Your task to perform on an android device: Is it going to rain today? Image 0: 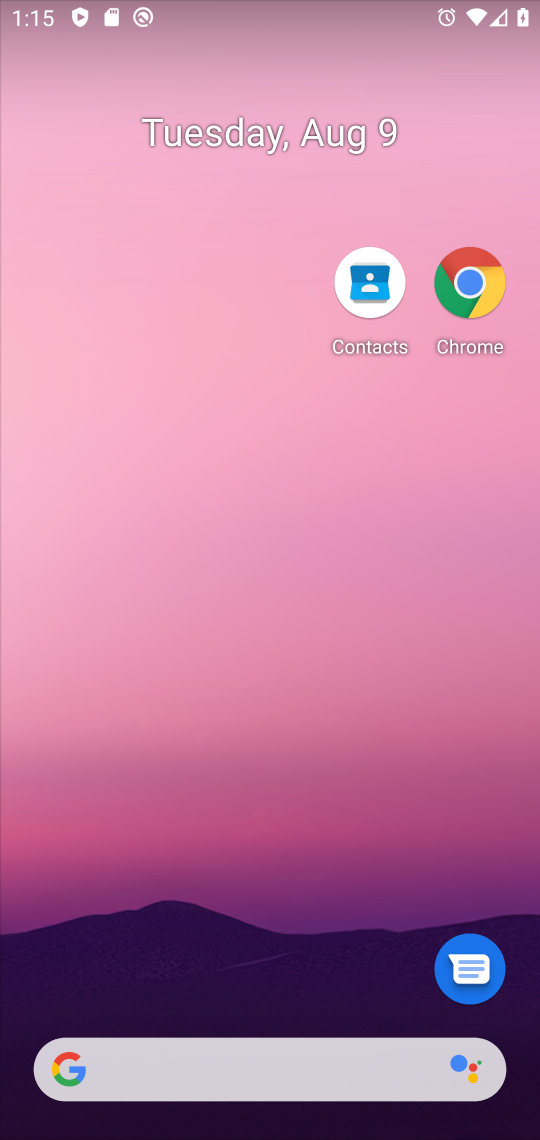
Step 0: drag from (290, 979) to (316, 137)
Your task to perform on an android device: Is it going to rain today? Image 1: 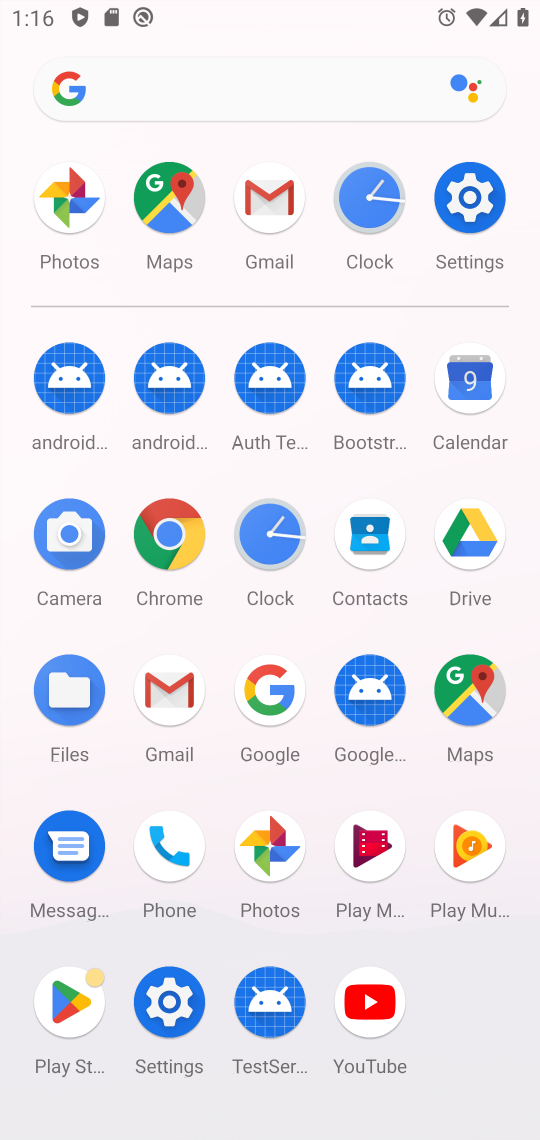
Step 1: click (143, 101)
Your task to perform on an android device: Is it going to rain today? Image 2: 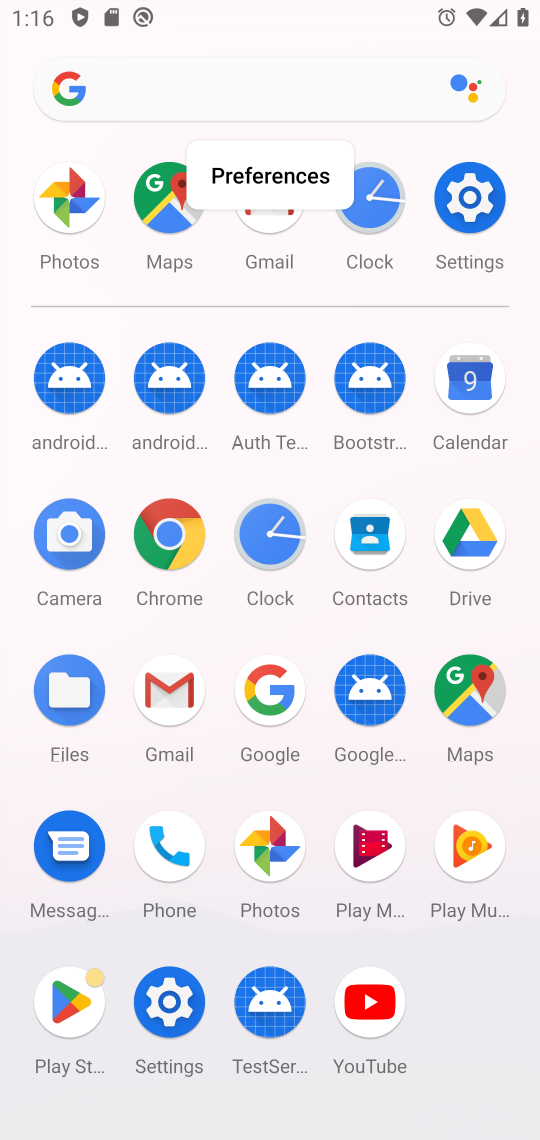
Step 2: click (297, 52)
Your task to perform on an android device: Is it going to rain today? Image 3: 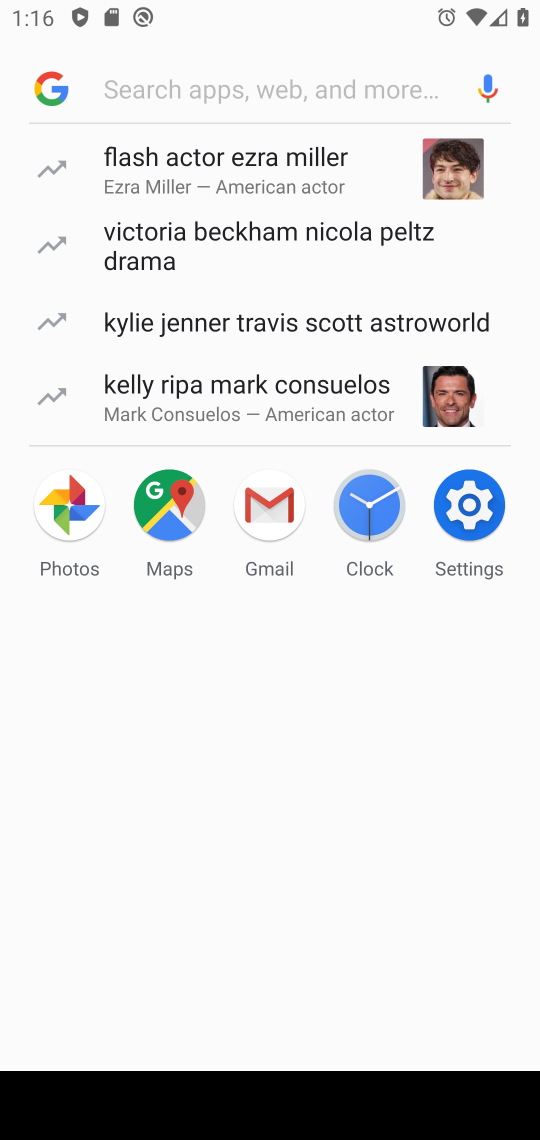
Step 3: type "Is it going to rain today?"
Your task to perform on an android device: Is it going to rain today? Image 4: 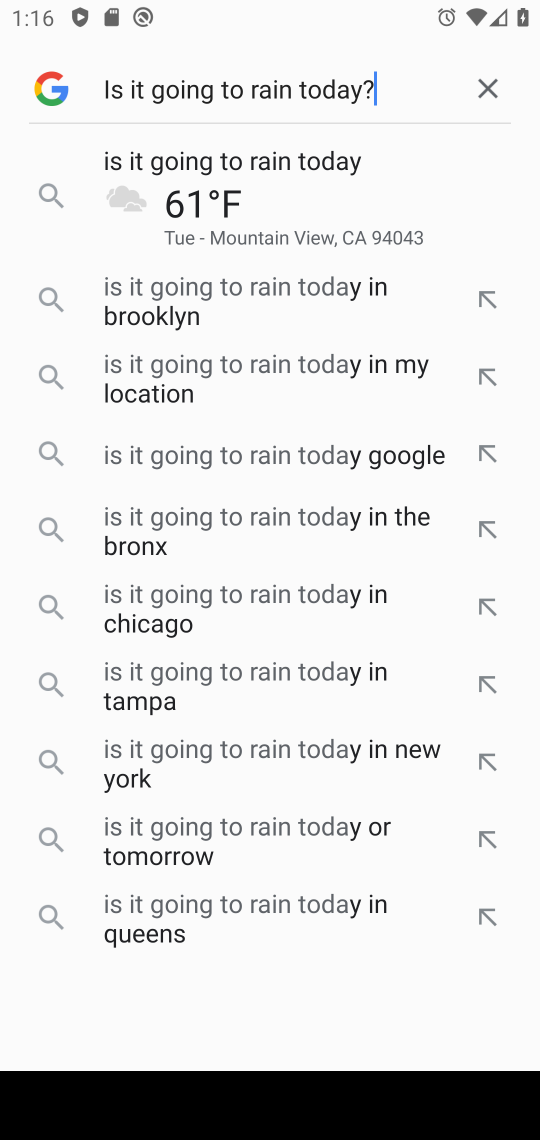
Step 4: type ""
Your task to perform on an android device: Is it going to rain today? Image 5: 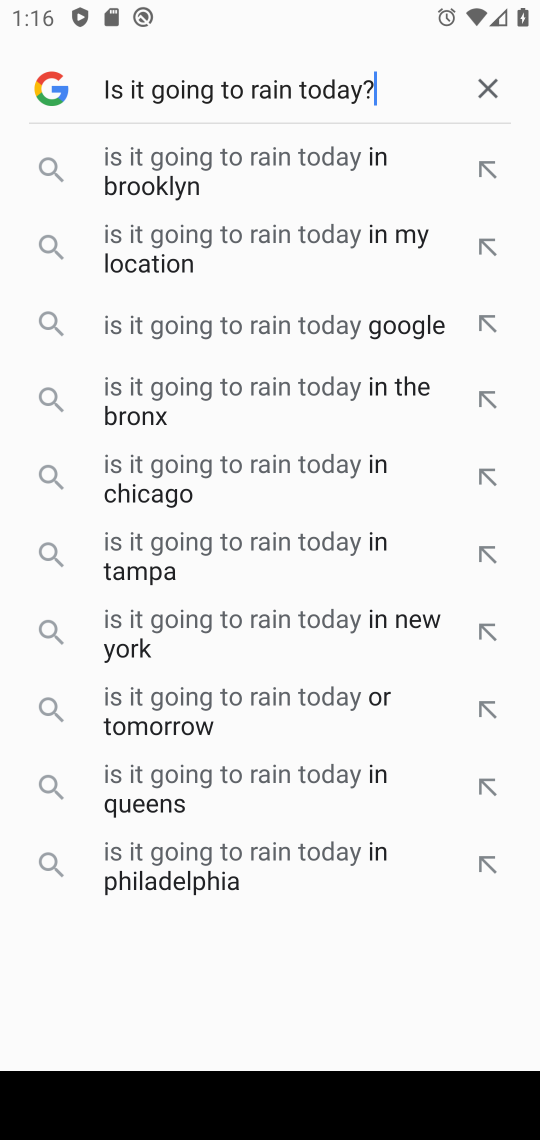
Step 5: click (161, 166)
Your task to perform on an android device: Is it going to rain today? Image 6: 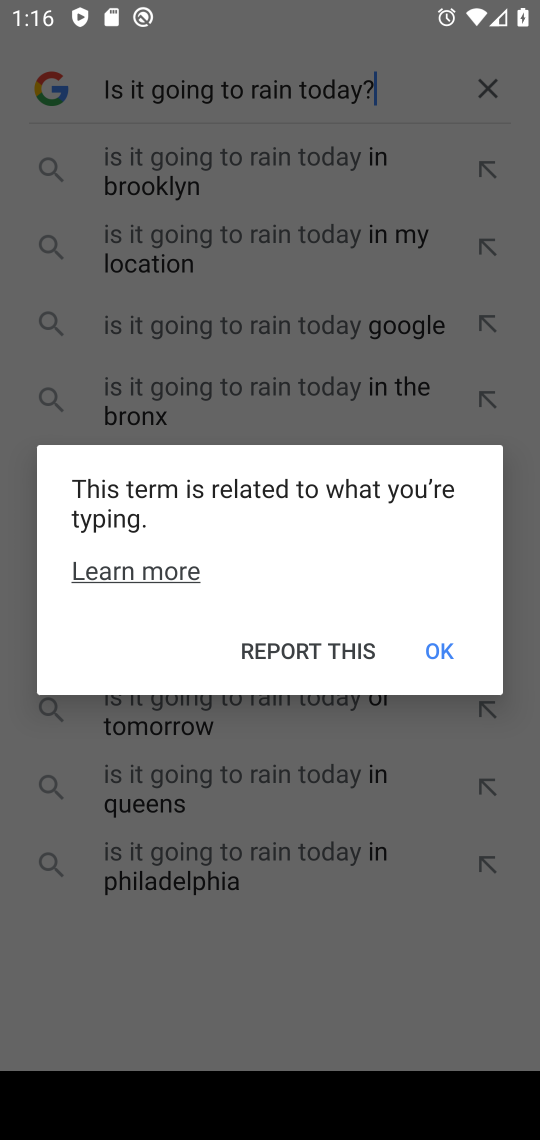
Step 6: click (439, 650)
Your task to perform on an android device: Is it going to rain today? Image 7: 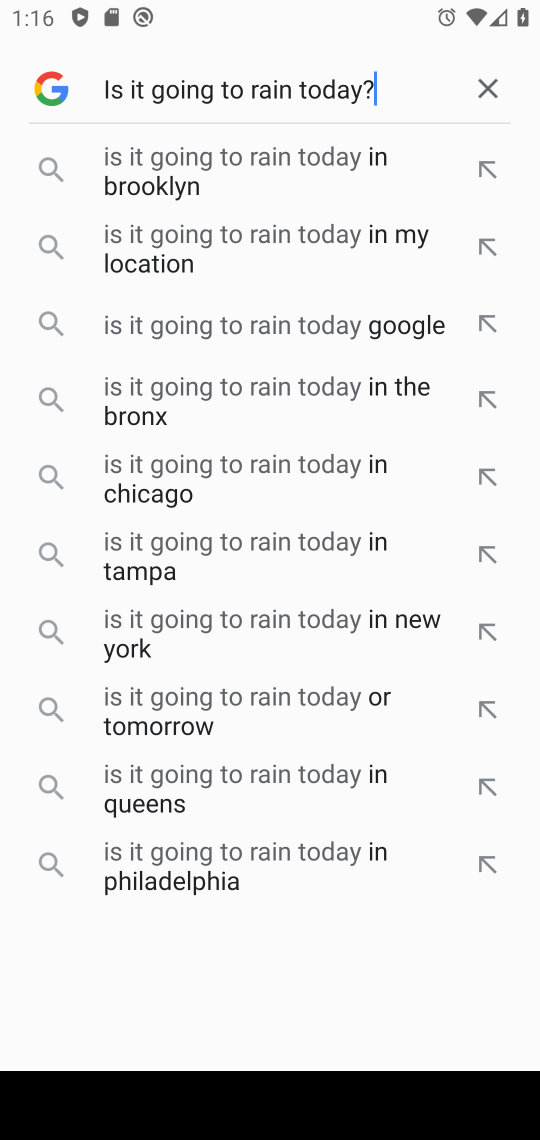
Step 7: click (215, 158)
Your task to perform on an android device: Is it going to rain today? Image 8: 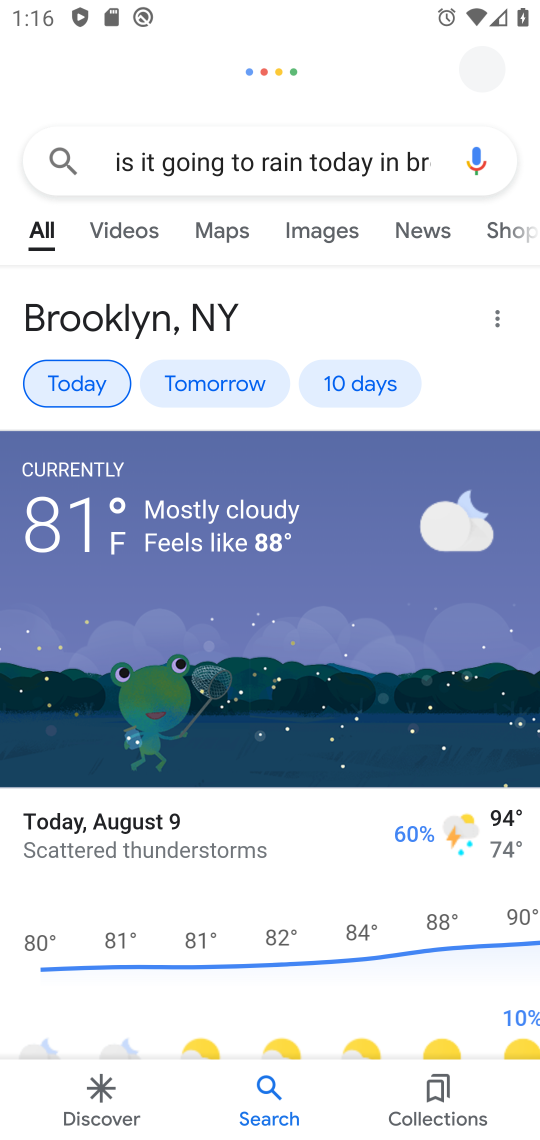
Step 8: task complete